Your task to perform on an android device: Set the phone to "Do not disturb". Image 0: 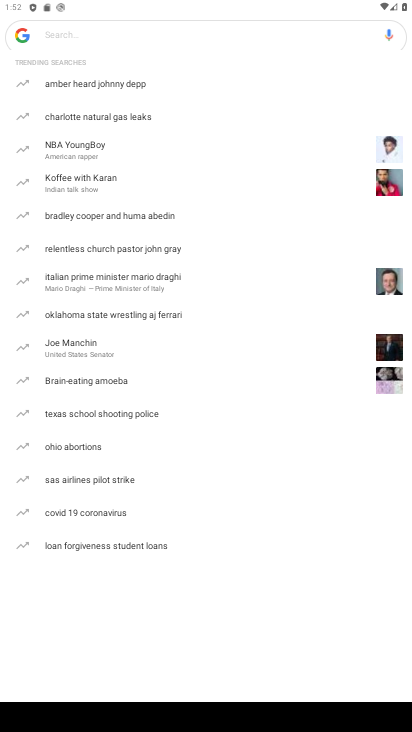
Step 0: press home button
Your task to perform on an android device: Set the phone to "Do not disturb". Image 1: 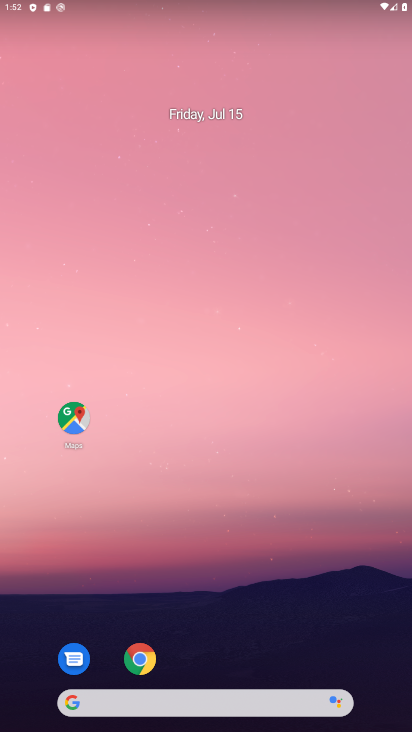
Step 1: drag from (180, 675) to (174, 220)
Your task to perform on an android device: Set the phone to "Do not disturb". Image 2: 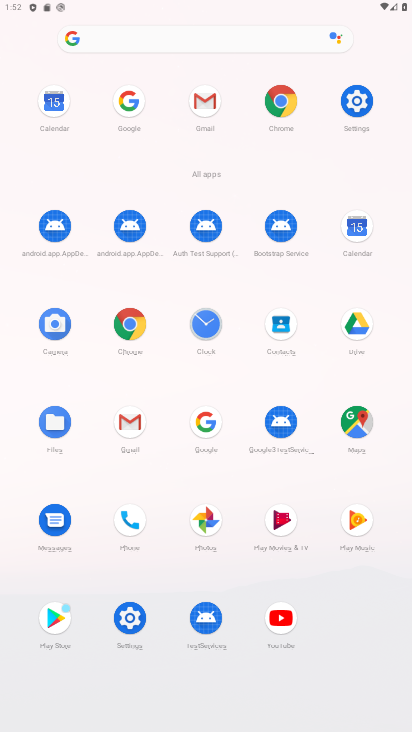
Step 2: click (358, 101)
Your task to perform on an android device: Set the phone to "Do not disturb". Image 3: 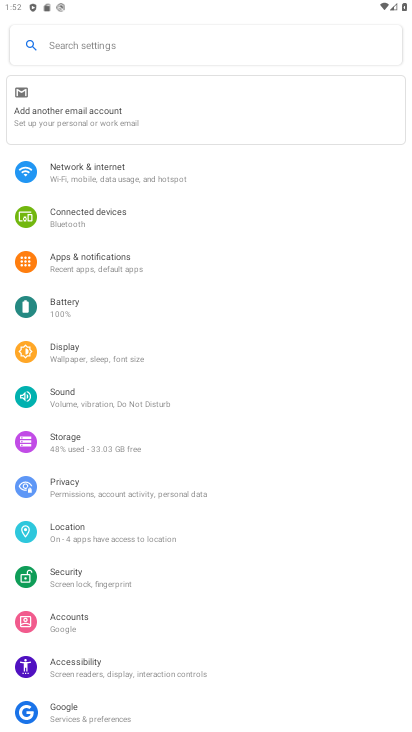
Step 3: click (111, 401)
Your task to perform on an android device: Set the phone to "Do not disturb". Image 4: 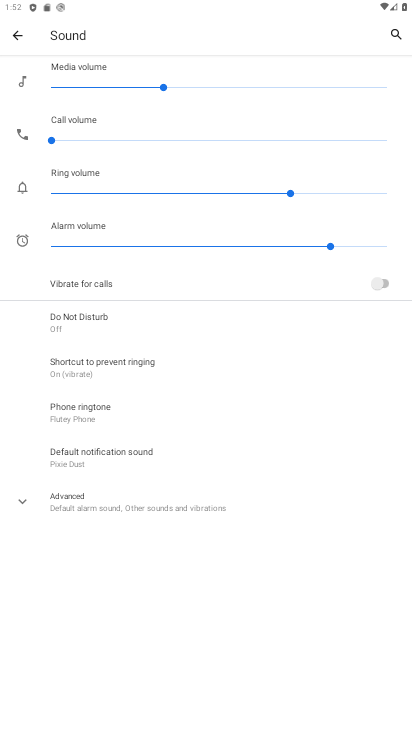
Step 4: click (65, 322)
Your task to perform on an android device: Set the phone to "Do not disturb". Image 5: 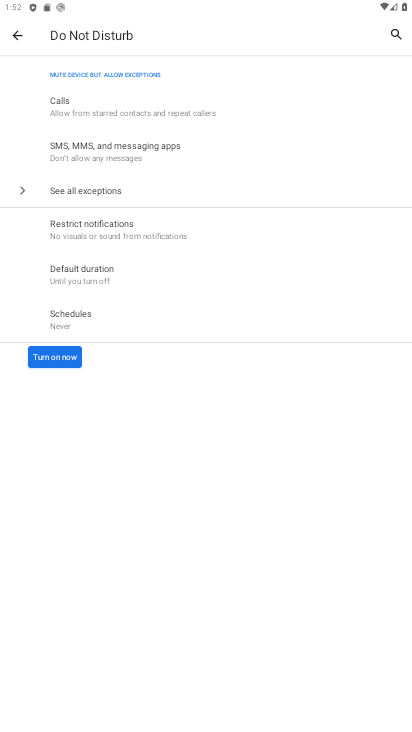
Step 5: click (60, 362)
Your task to perform on an android device: Set the phone to "Do not disturb". Image 6: 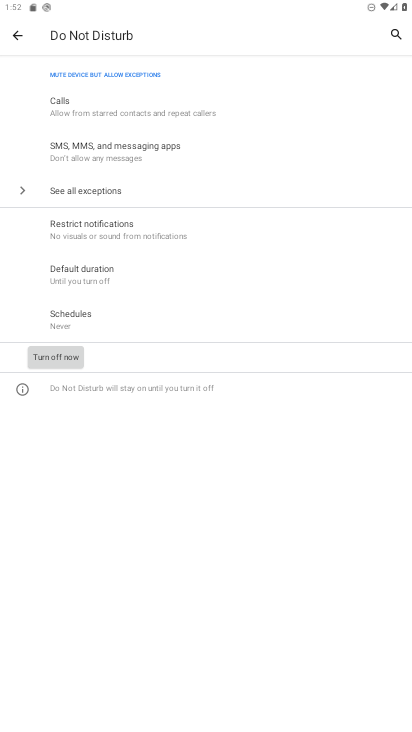
Step 6: task complete